Your task to perform on an android device: Open the calendar and show me this week's events Image 0: 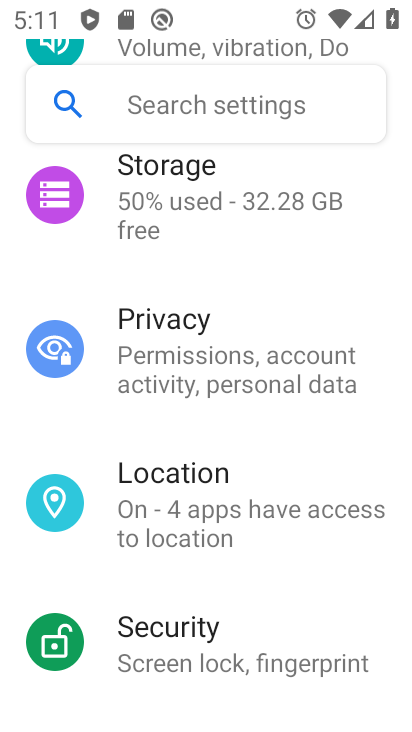
Step 0: press home button
Your task to perform on an android device: Open the calendar and show me this week's events Image 1: 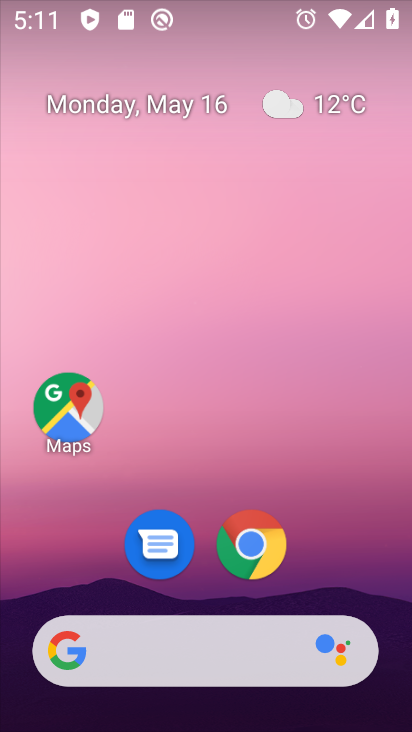
Step 1: drag from (353, 576) to (257, 128)
Your task to perform on an android device: Open the calendar and show me this week's events Image 2: 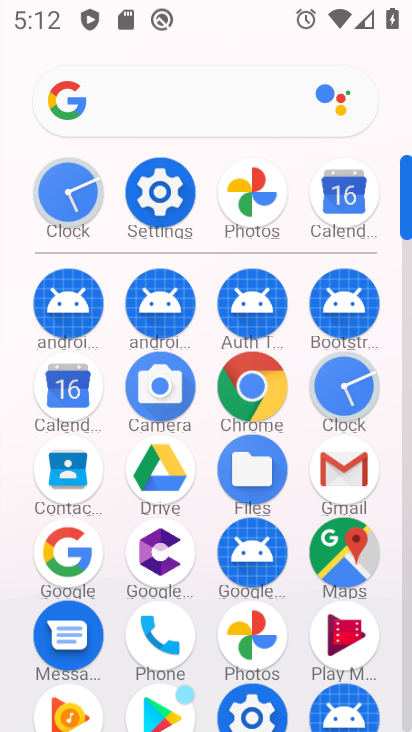
Step 2: click (66, 387)
Your task to perform on an android device: Open the calendar and show me this week's events Image 3: 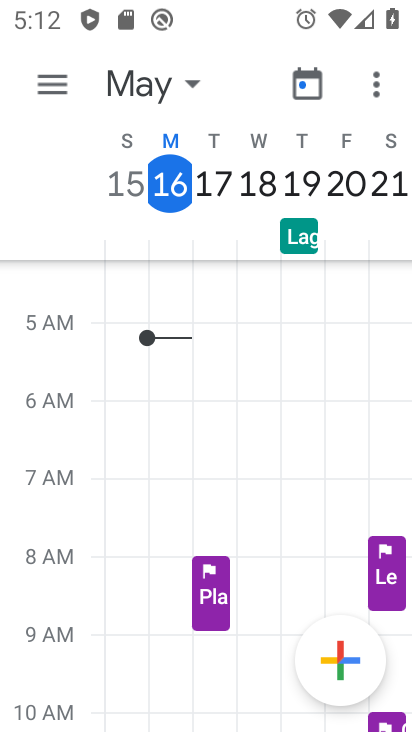
Step 3: click (311, 85)
Your task to perform on an android device: Open the calendar and show me this week's events Image 4: 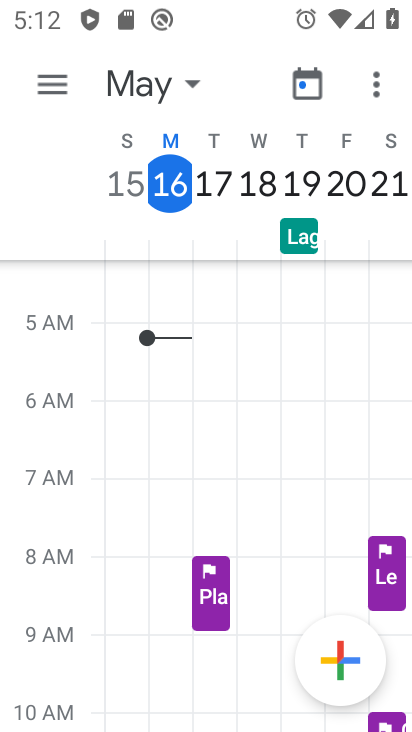
Step 4: click (311, 86)
Your task to perform on an android device: Open the calendar and show me this week's events Image 5: 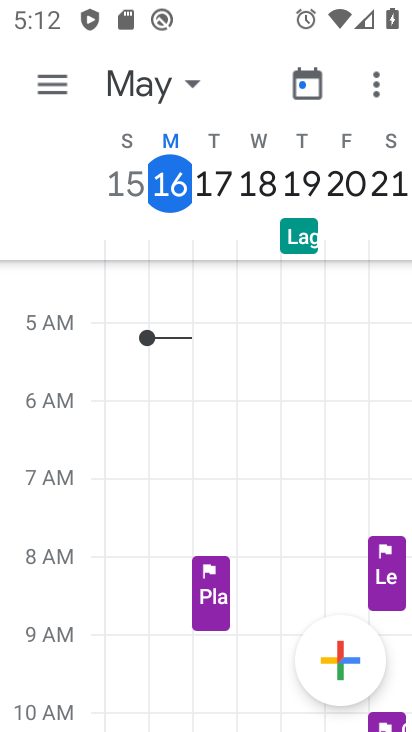
Step 5: click (59, 82)
Your task to perform on an android device: Open the calendar and show me this week's events Image 6: 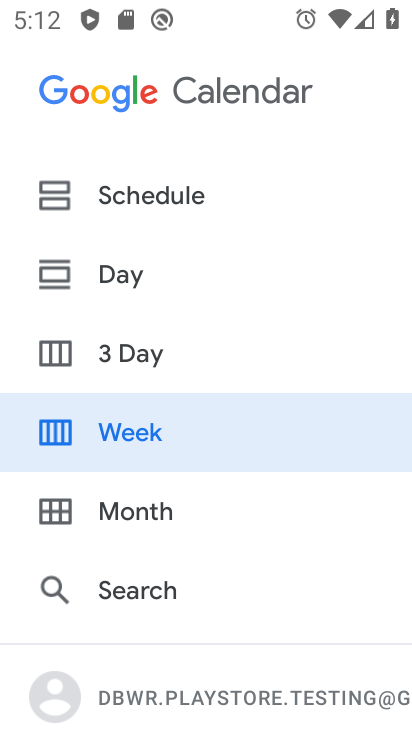
Step 6: click (153, 200)
Your task to perform on an android device: Open the calendar and show me this week's events Image 7: 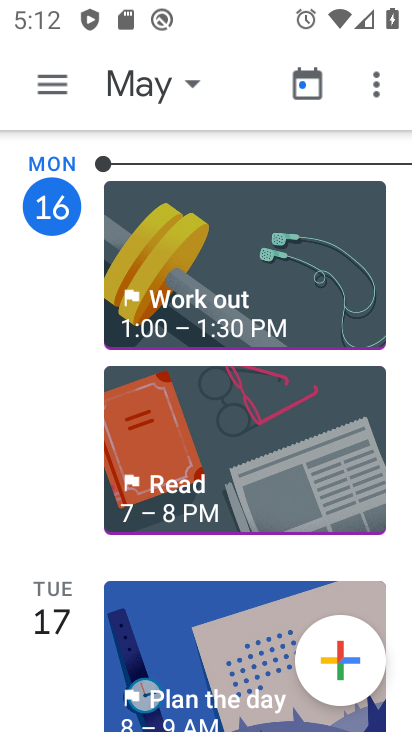
Step 7: task complete